Your task to perform on an android device: Go to Yahoo.com Image 0: 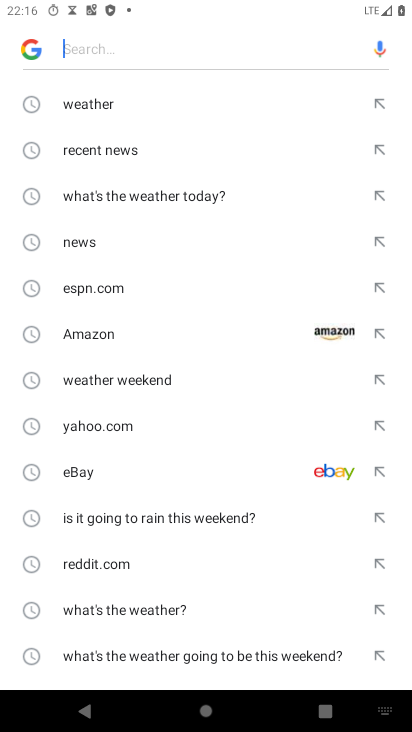
Step 0: press home button
Your task to perform on an android device: Go to Yahoo.com Image 1: 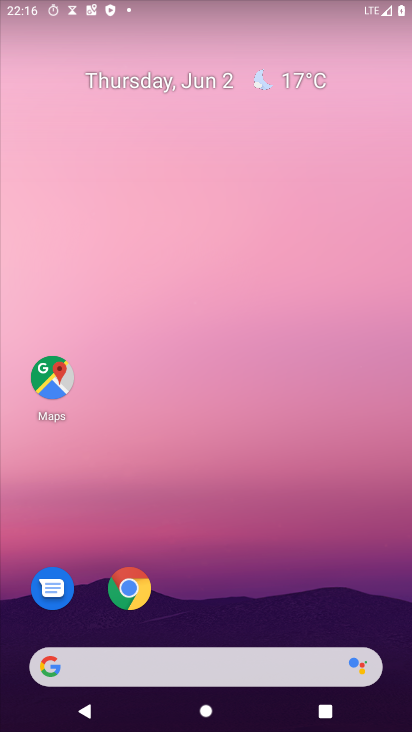
Step 1: click (136, 577)
Your task to perform on an android device: Go to Yahoo.com Image 2: 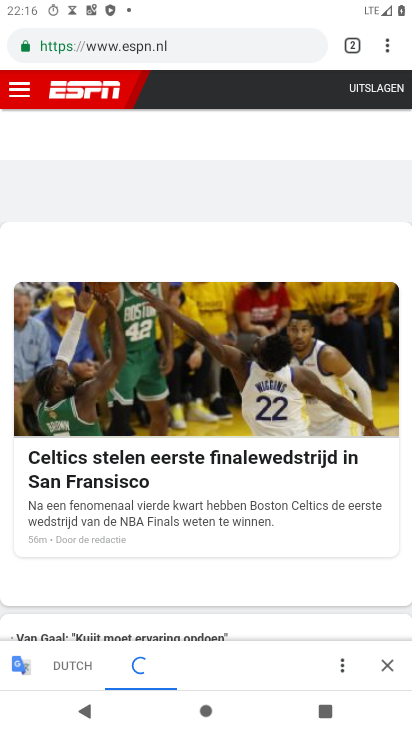
Step 2: click (347, 42)
Your task to perform on an android device: Go to Yahoo.com Image 3: 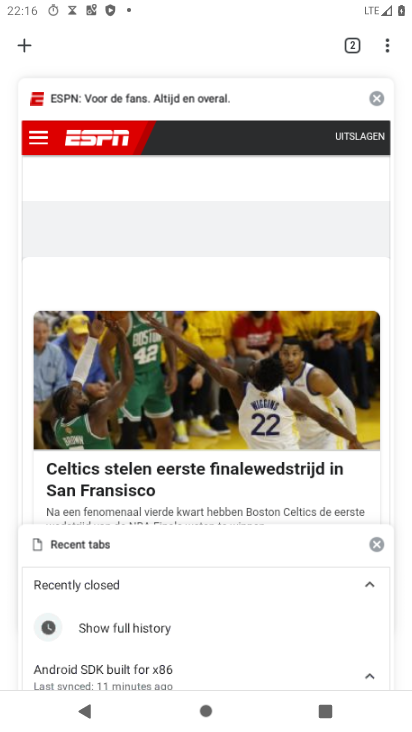
Step 3: click (24, 37)
Your task to perform on an android device: Go to Yahoo.com Image 4: 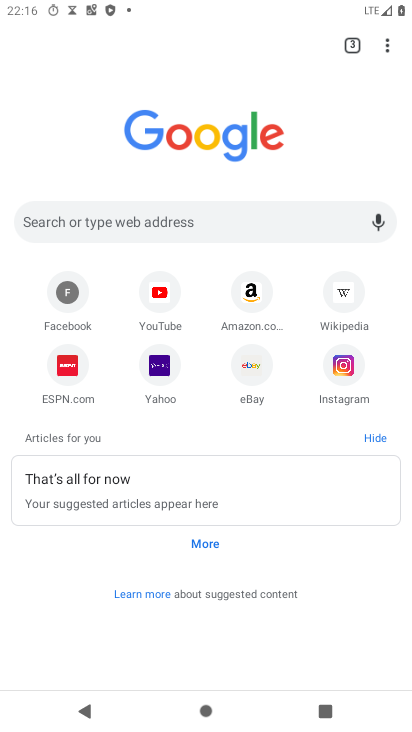
Step 4: click (154, 370)
Your task to perform on an android device: Go to Yahoo.com Image 5: 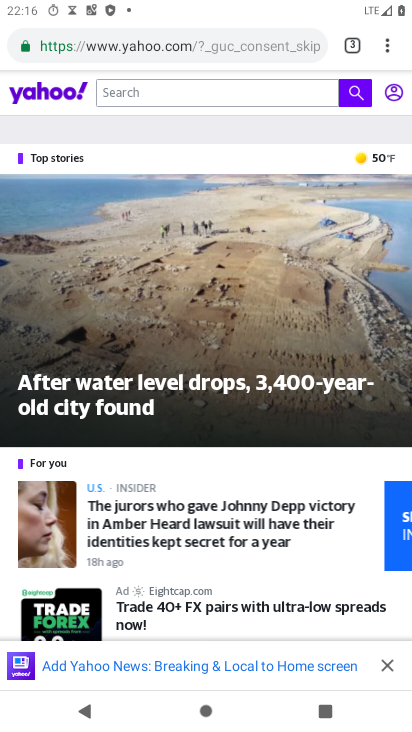
Step 5: task complete